Your task to perform on an android device: turn on translation in the chrome app Image 0: 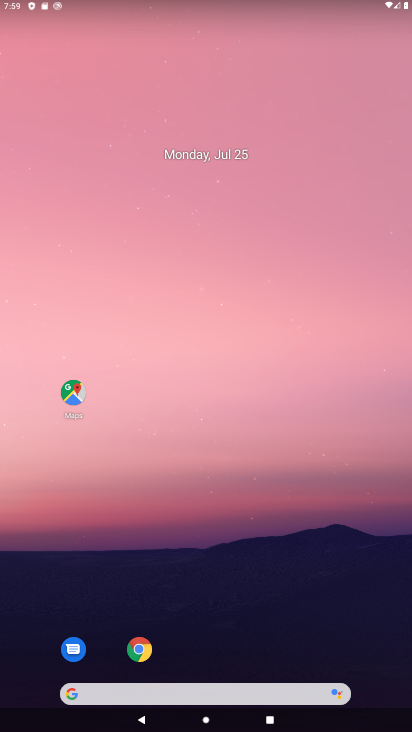
Step 0: click (141, 655)
Your task to perform on an android device: turn on translation in the chrome app Image 1: 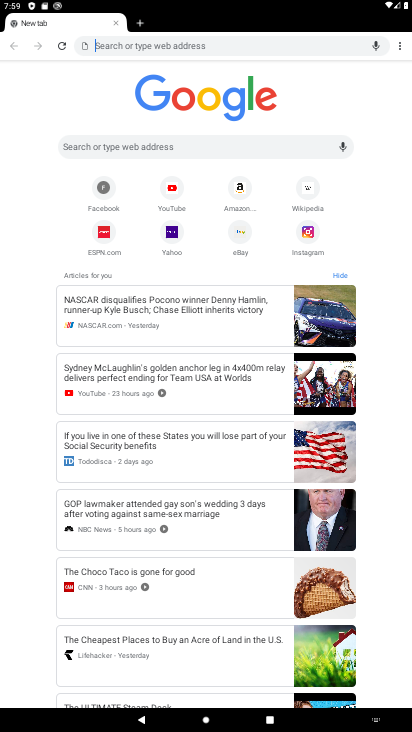
Step 1: click (395, 38)
Your task to perform on an android device: turn on translation in the chrome app Image 2: 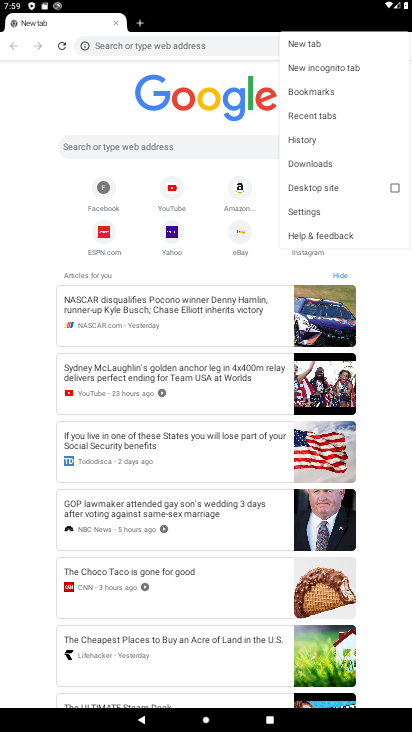
Step 2: click (310, 216)
Your task to perform on an android device: turn on translation in the chrome app Image 3: 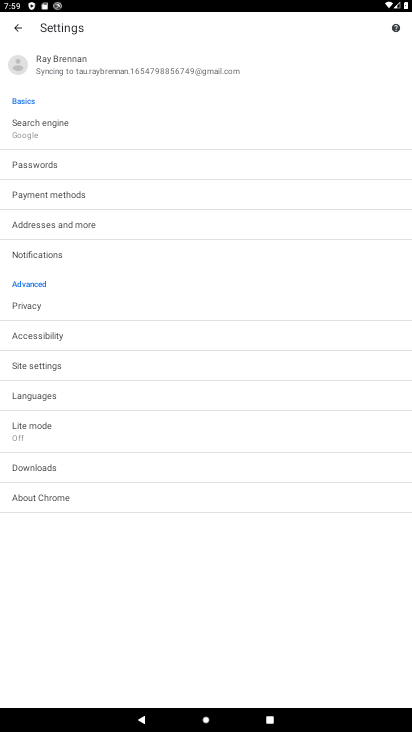
Step 3: click (88, 394)
Your task to perform on an android device: turn on translation in the chrome app Image 4: 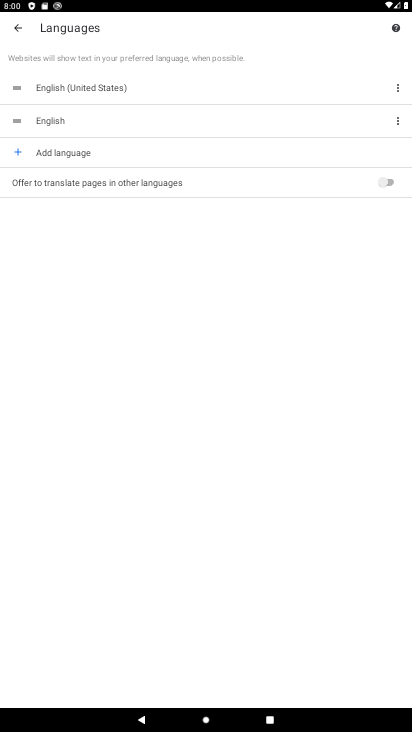
Step 4: click (381, 174)
Your task to perform on an android device: turn on translation in the chrome app Image 5: 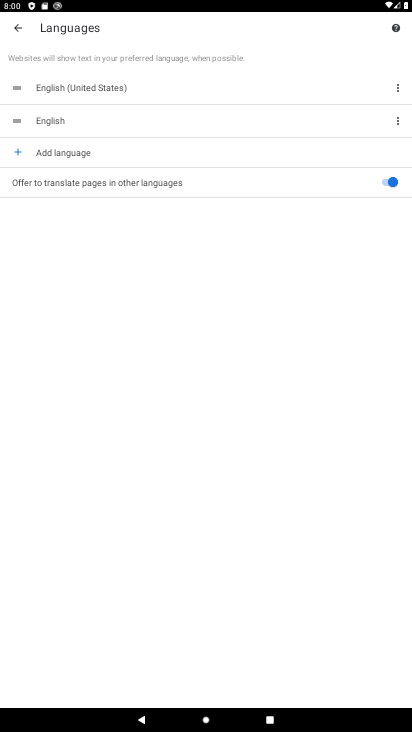
Step 5: task complete